Your task to perform on an android device: check storage Image 0: 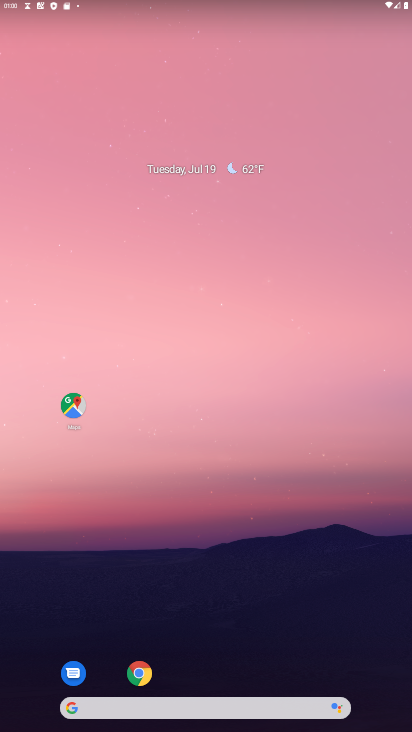
Step 0: drag from (244, 656) to (242, 300)
Your task to perform on an android device: check storage Image 1: 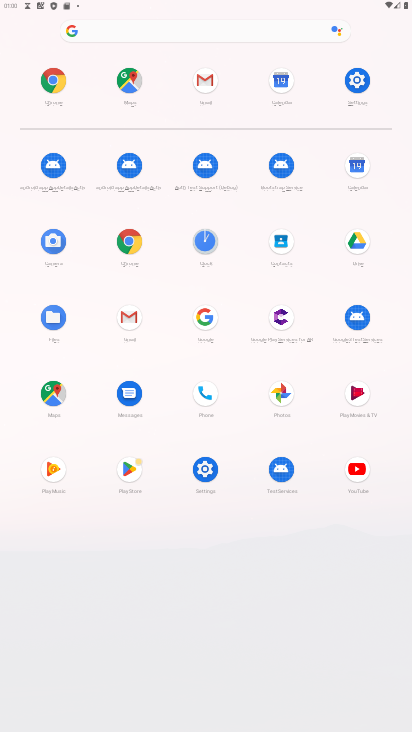
Step 1: click (356, 78)
Your task to perform on an android device: check storage Image 2: 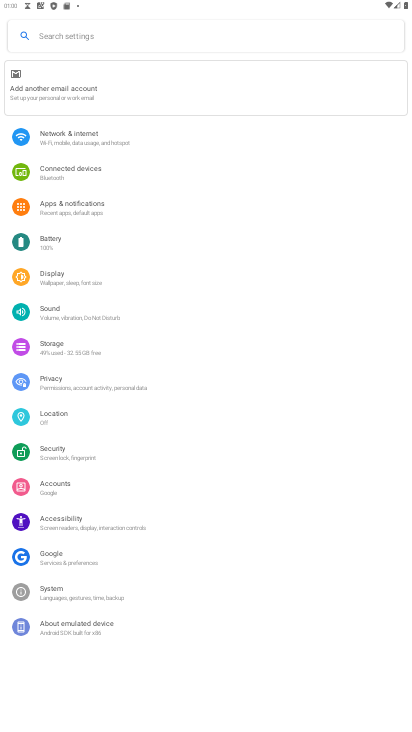
Step 2: click (43, 341)
Your task to perform on an android device: check storage Image 3: 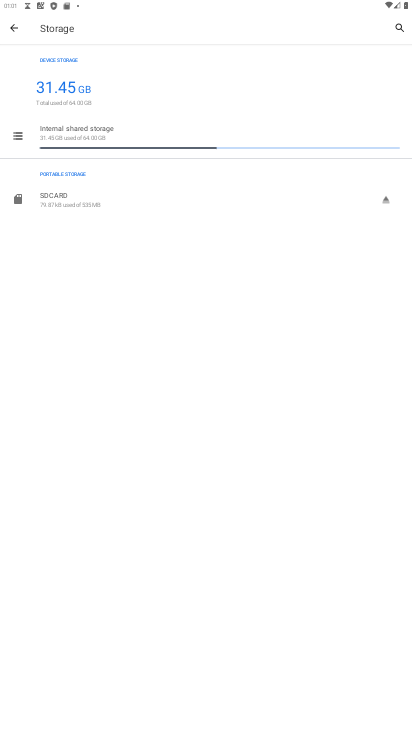
Step 3: task complete